Your task to perform on an android device: move a message to another label in the gmail app Image 0: 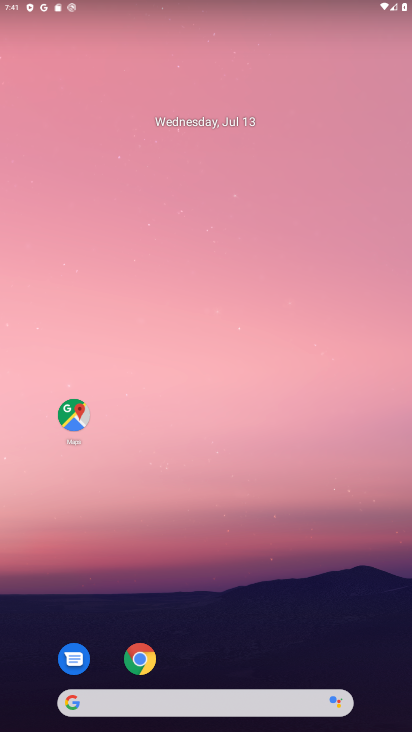
Step 0: drag from (281, 640) to (309, 228)
Your task to perform on an android device: move a message to another label in the gmail app Image 1: 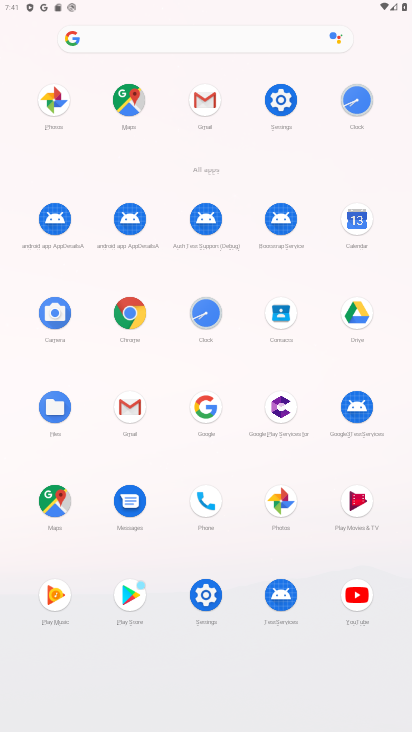
Step 1: click (198, 102)
Your task to perform on an android device: move a message to another label in the gmail app Image 2: 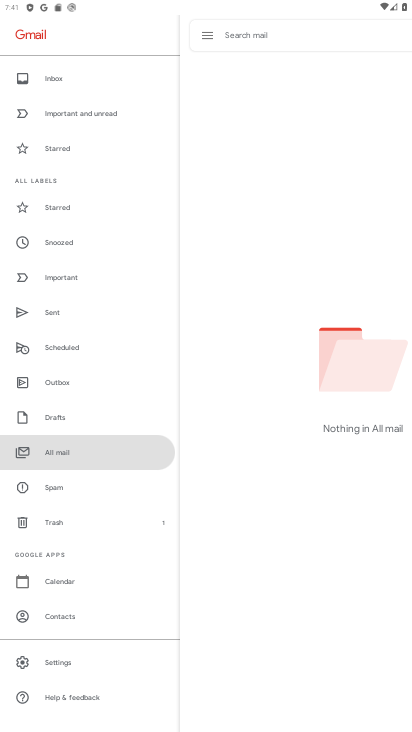
Step 2: click (85, 460)
Your task to perform on an android device: move a message to another label in the gmail app Image 3: 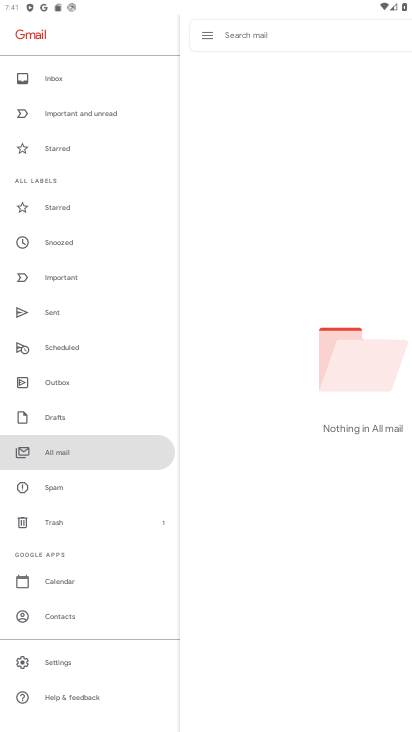
Step 3: task complete